Your task to perform on an android device: Go to Wikipedia Image 0: 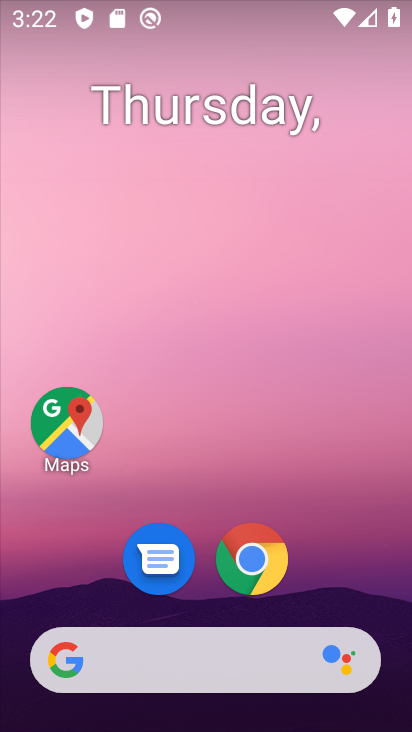
Step 0: click (272, 567)
Your task to perform on an android device: Go to Wikipedia Image 1: 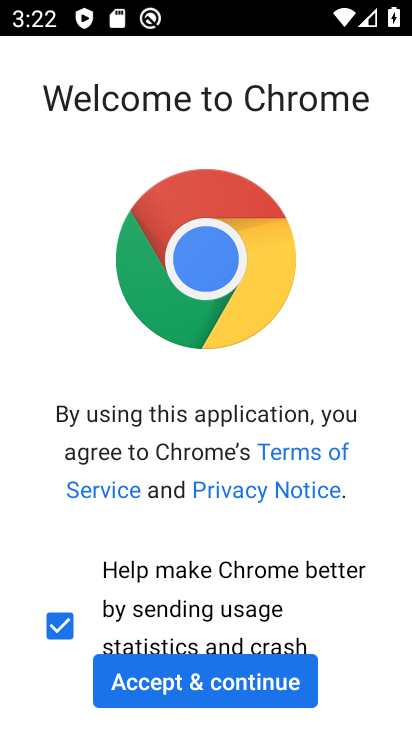
Step 1: click (256, 686)
Your task to perform on an android device: Go to Wikipedia Image 2: 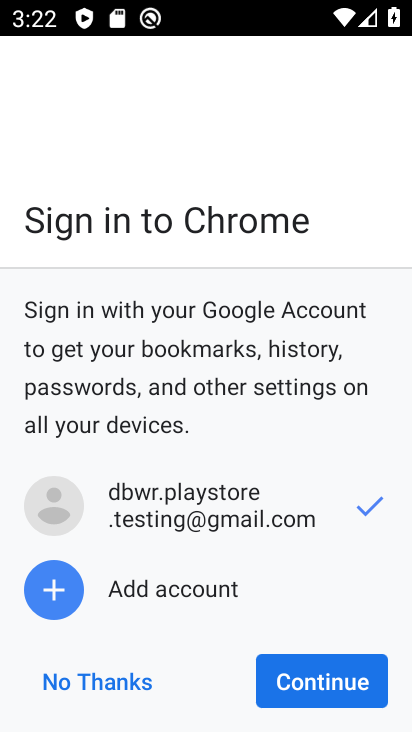
Step 2: click (314, 691)
Your task to perform on an android device: Go to Wikipedia Image 3: 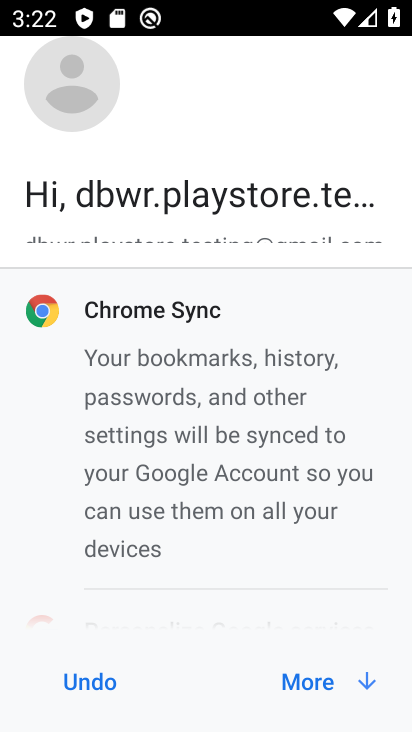
Step 3: click (329, 674)
Your task to perform on an android device: Go to Wikipedia Image 4: 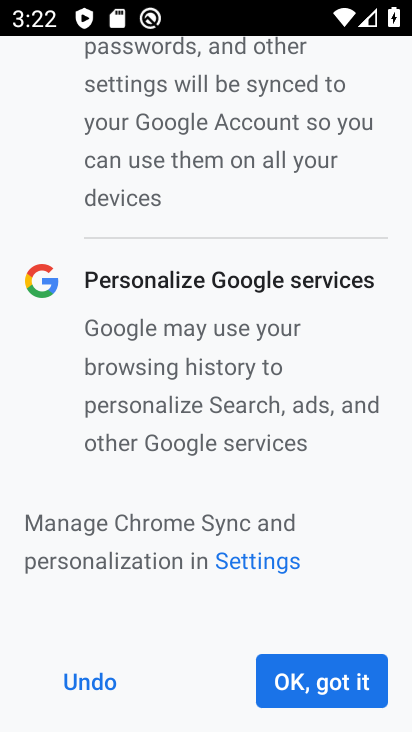
Step 4: click (322, 689)
Your task to perform on an android device: Go to Wikipedia Image 5: 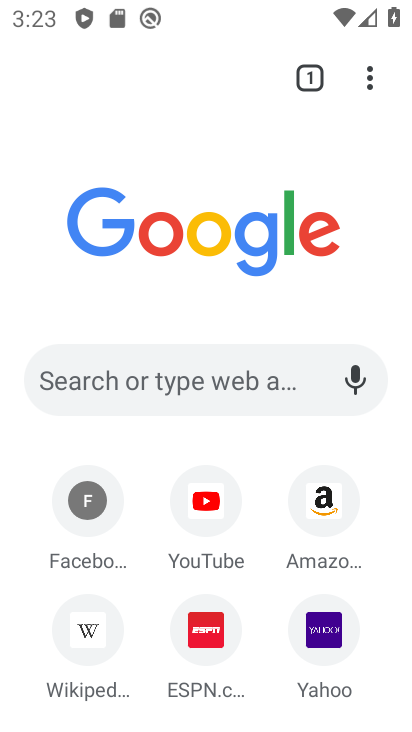
Step 5: click (83, 642)
Your task to perform on an android device: Go to Wikipedia Image 6: 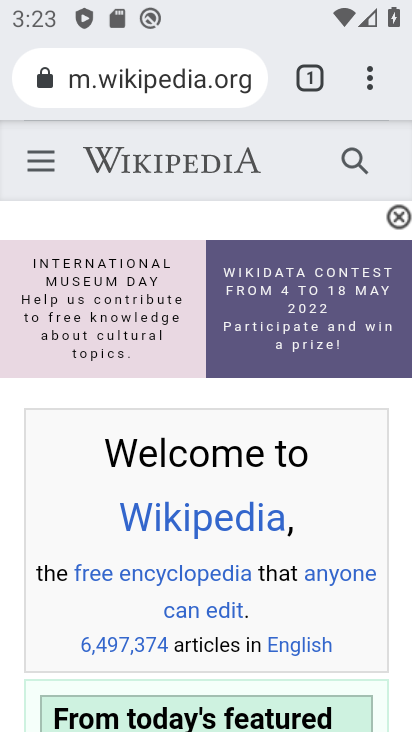
Step 6: task complete